Your task to perform on an android device: manage bookmarks in the chrome app Image 0: 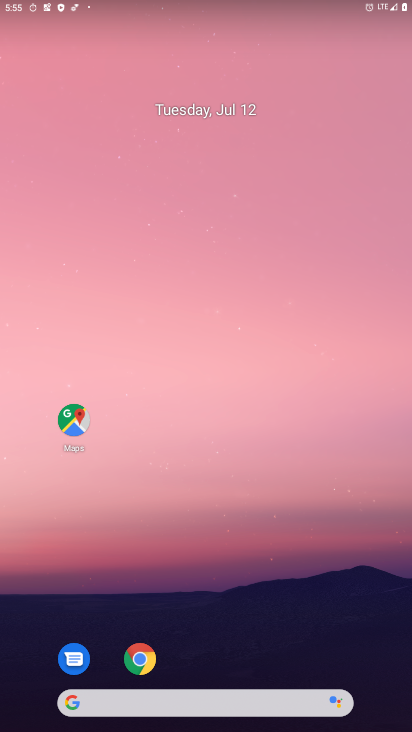
Step 0: click (142, 656)
Your task to perform on an android device: manage bookmarks in the chrome app Image 1: 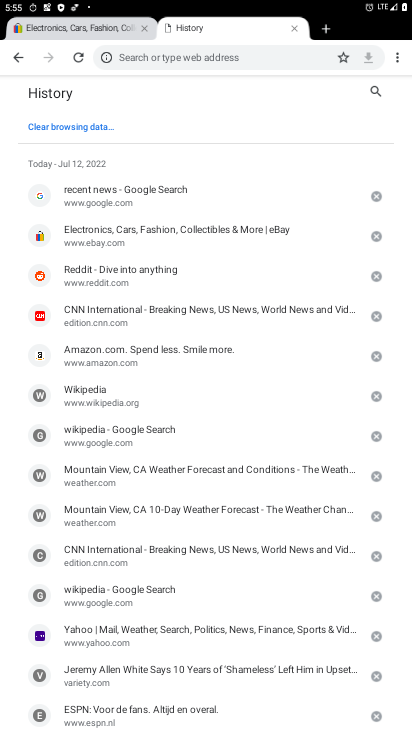
Step 1: click (395, 56)
Your task to perform on an android device: manage bookmarks in the chrome app Image 2: 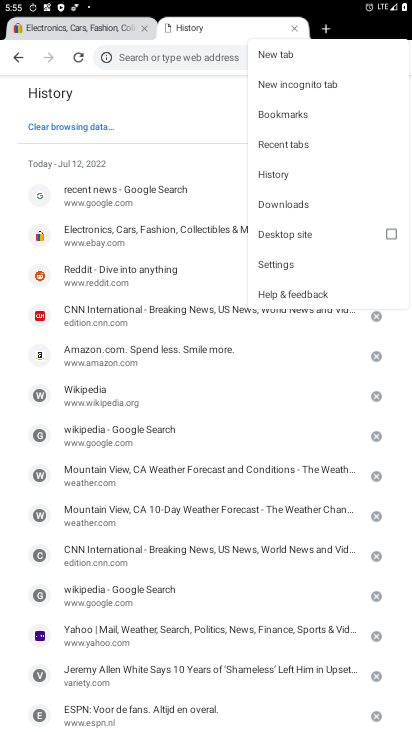
Step 2: click (283, 110)
Your task to perform on an android device: manage bookmarks in the chrome app Image 3: 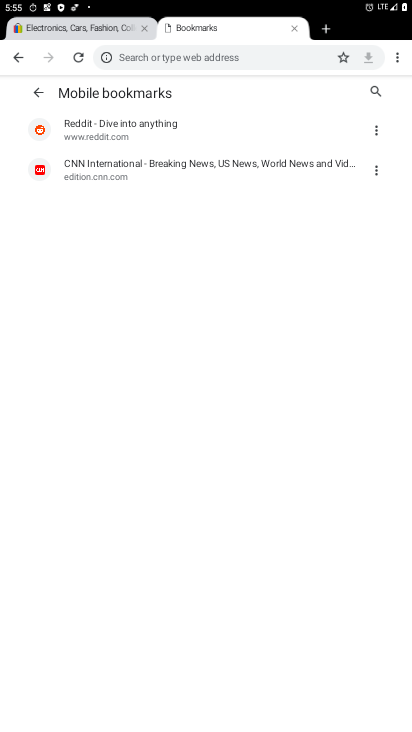
Step 3: click (378, 128)
Your task to perform on an android device: manage bookmarks in the chrome app Image 4: 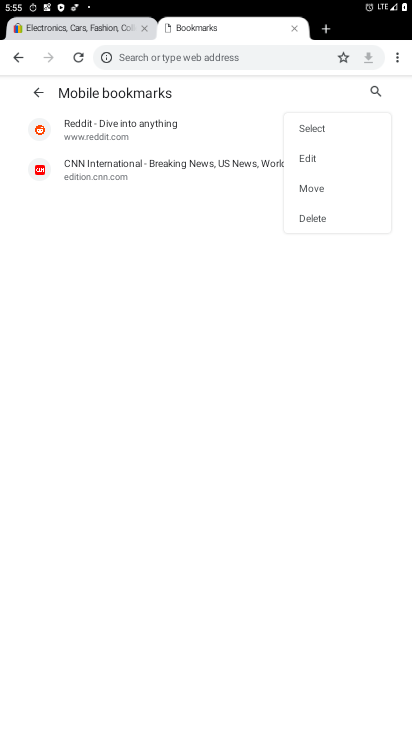
Step 4: click (320, 221)
Your task to perform on an android device: manage bookmarks in the chrome app Image 5: 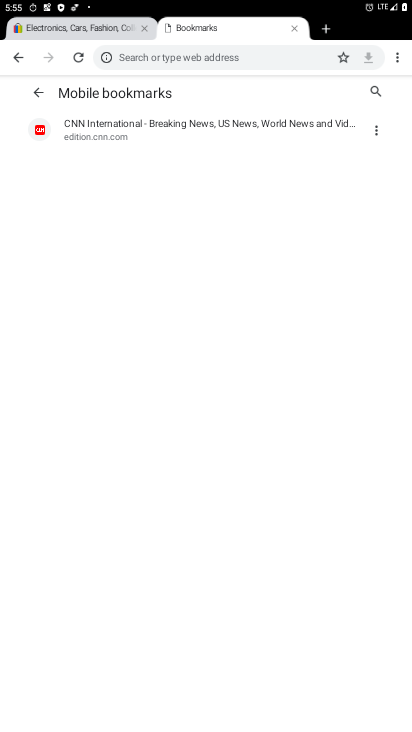
Step 5: task complete